Your task to perform on an android device: Go to Amazon Image 0: 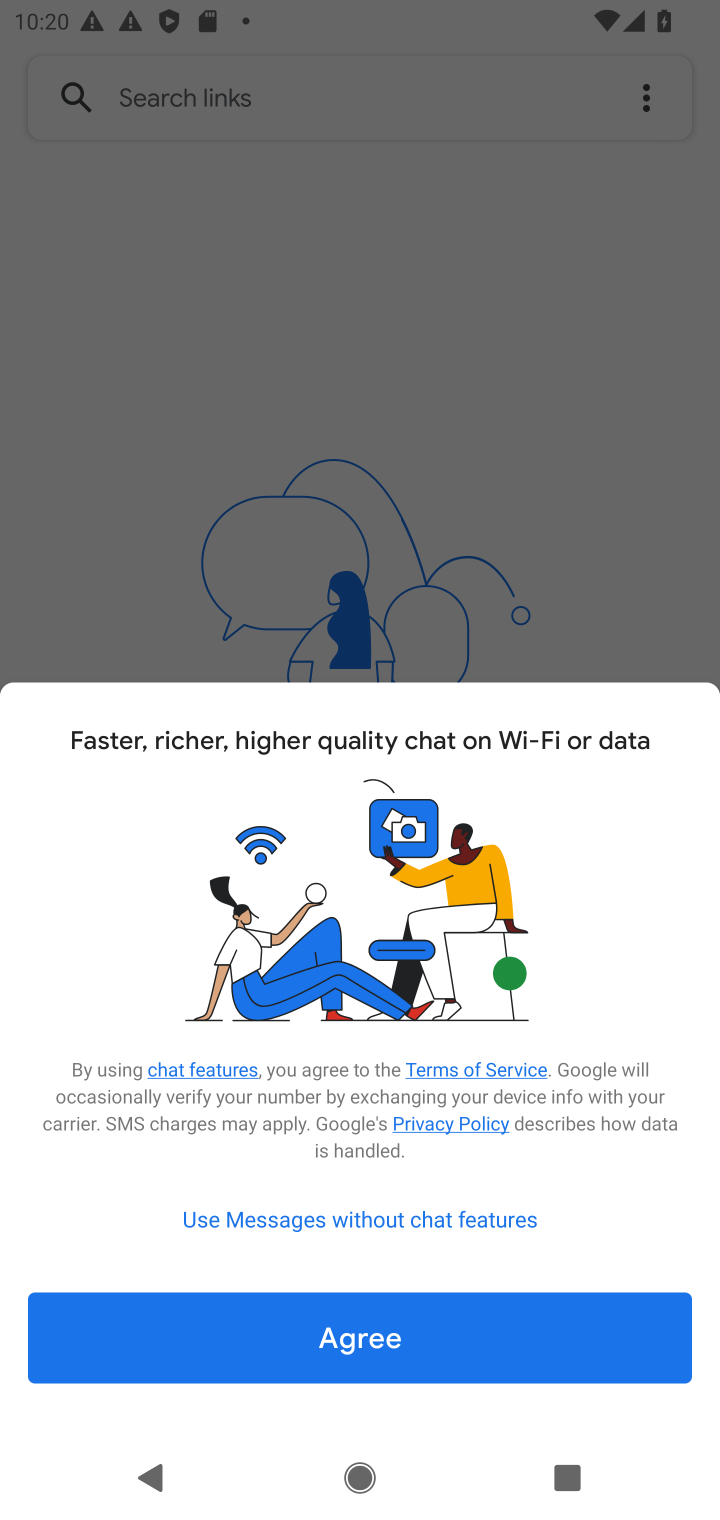
Step 0: click (374, 1352)
Your task to perform on an android device: Go to Amazon Image 1: 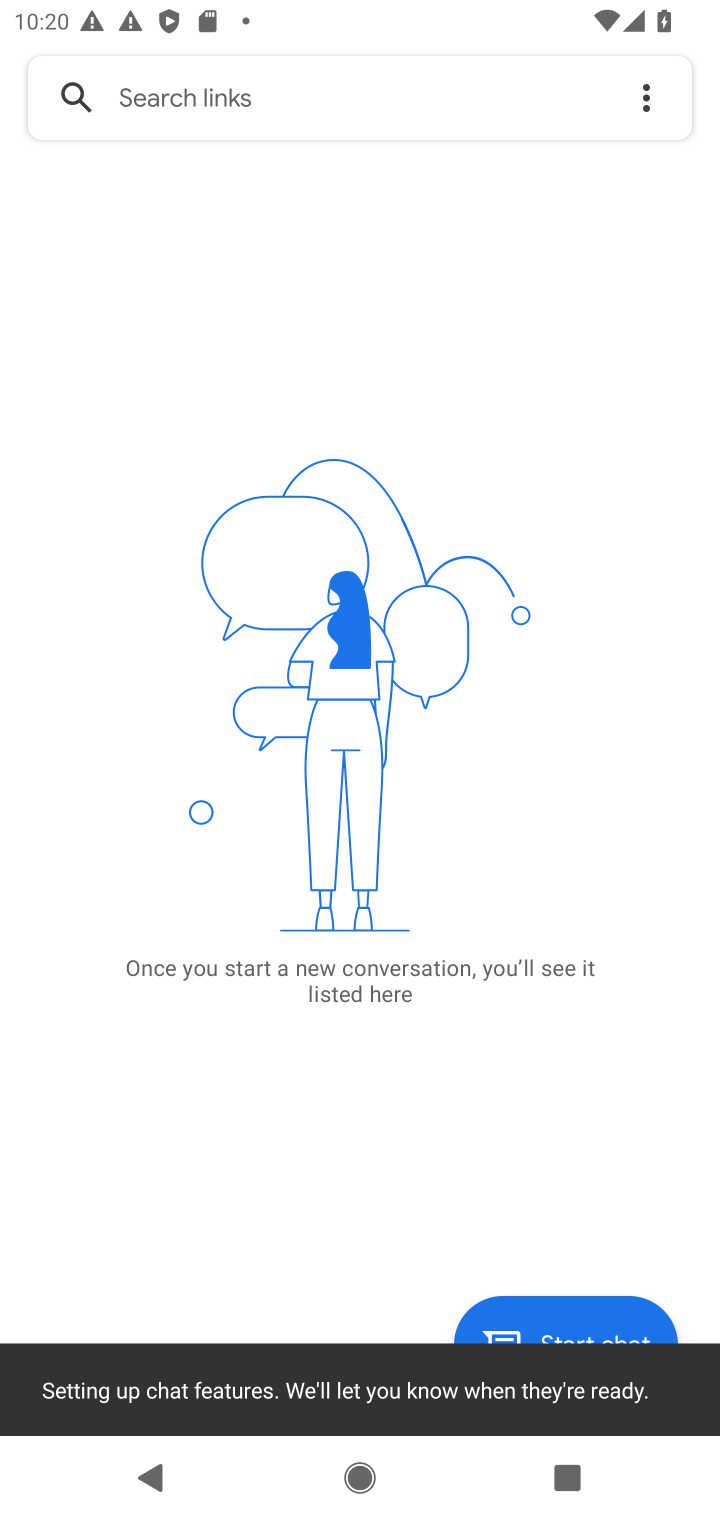
Step 1: click (349, 1490)
Your task to perform on an android device: Go to Amazon Image 2: 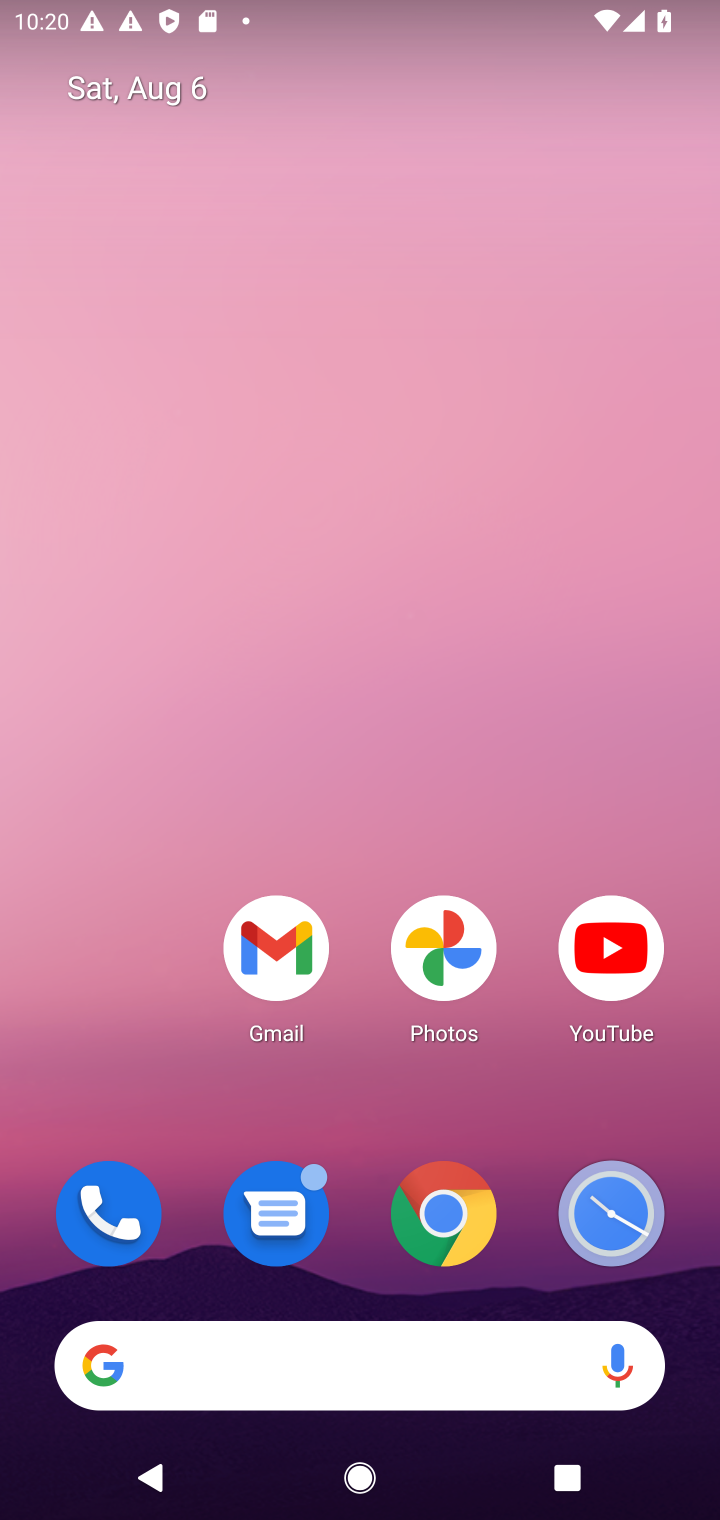
Step 2: drag from (405, 794) to (411, 78)
Your task to perform on an android device: Go to Amazon Image 3: 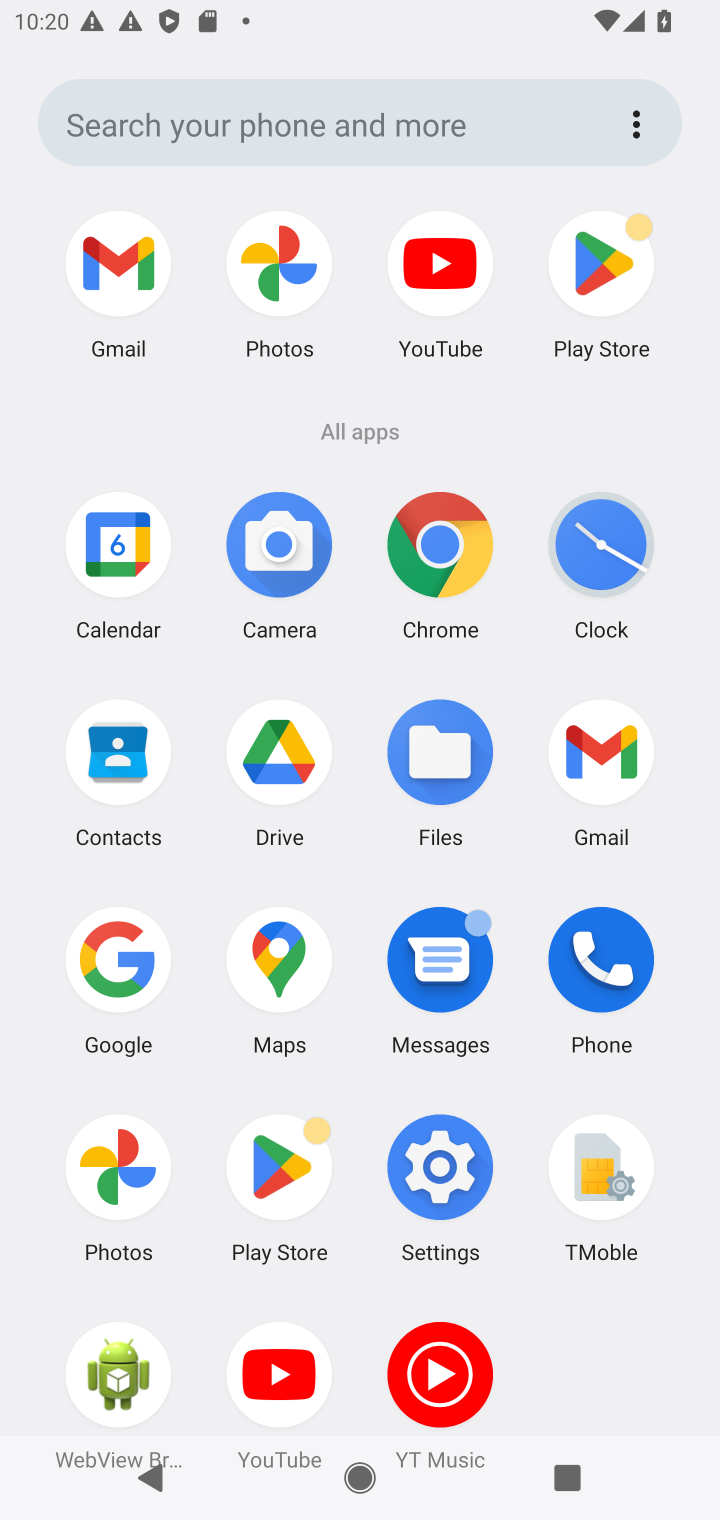
Step 3: click (455, 567)
Your task to perform on an android device: Go to Amazon Image 4: 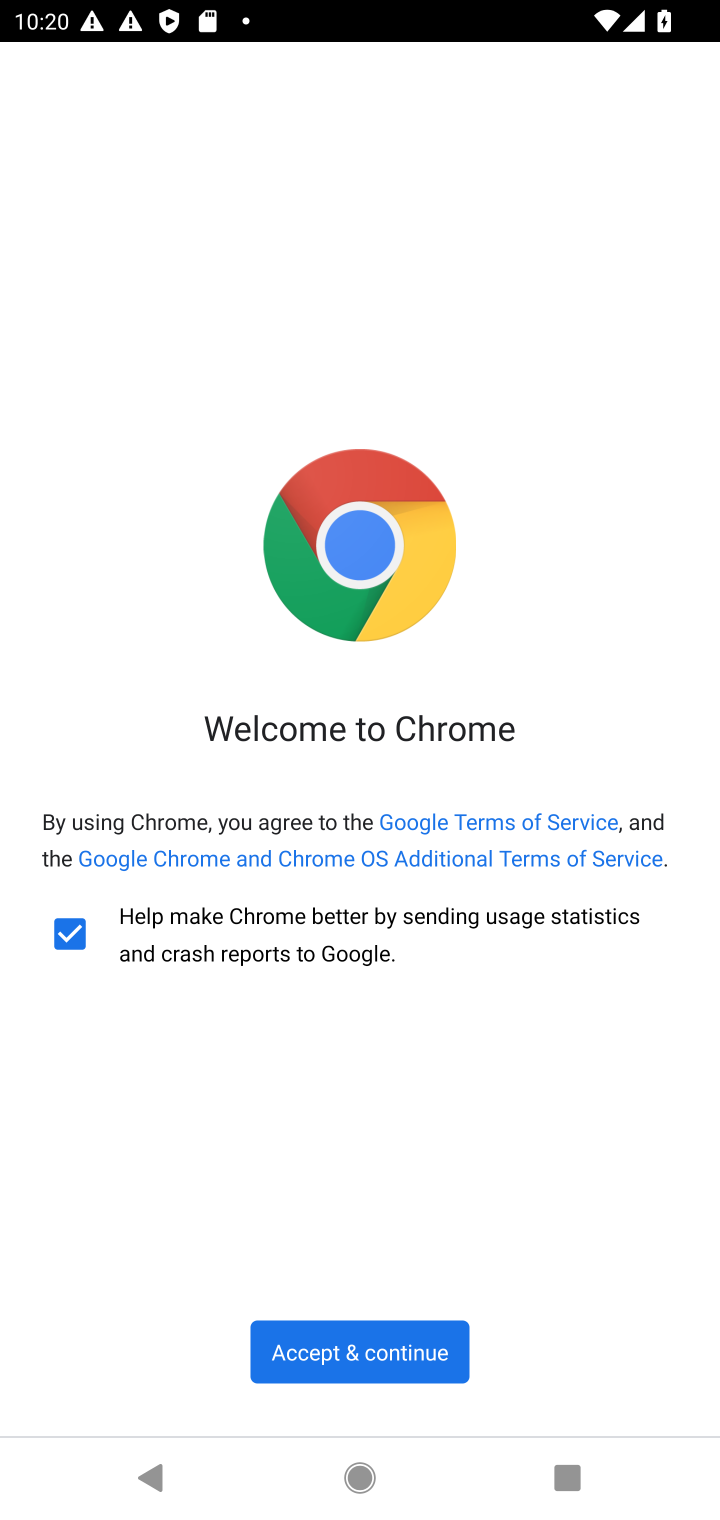
Step 4: click (323, 1363)
Your task to perform on an android device: Go to Amazon Image 5: 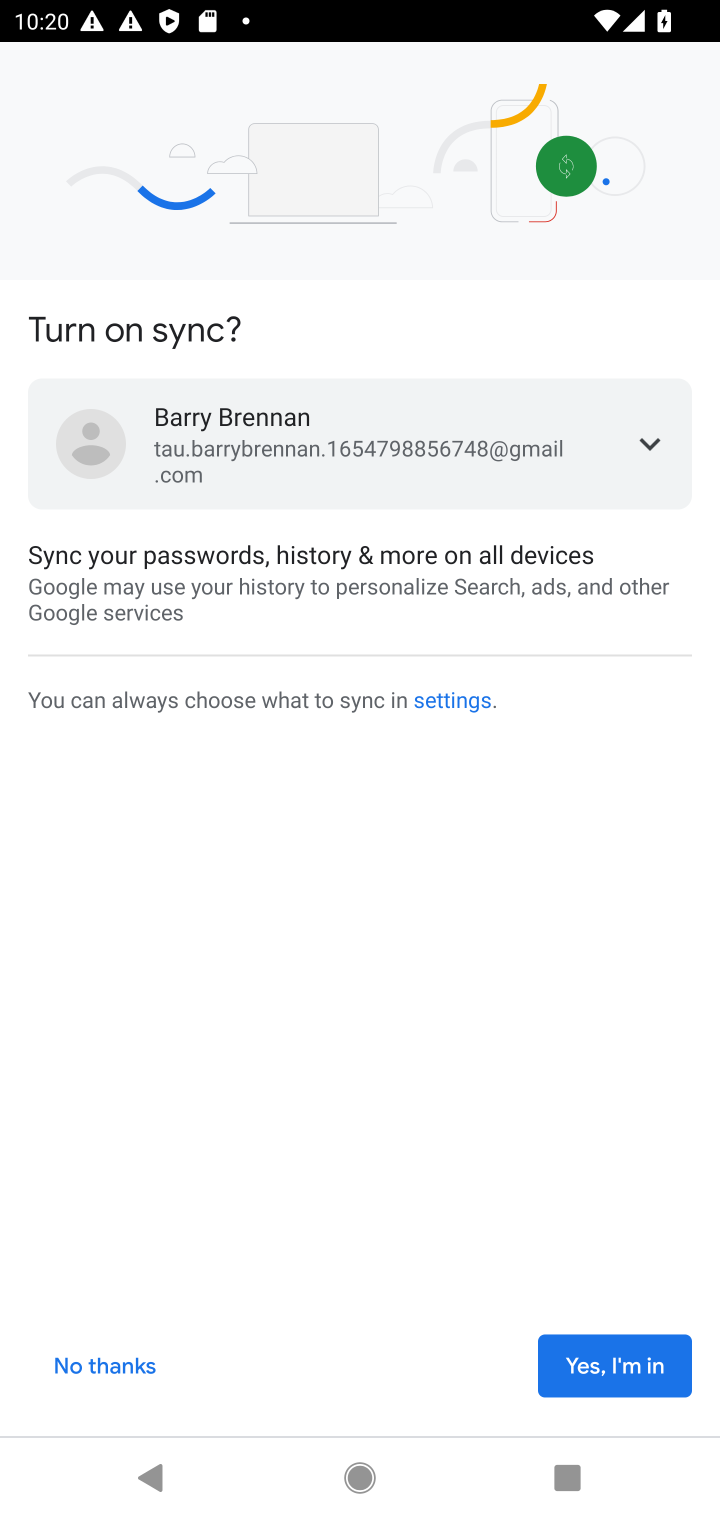
Step 5: click (619, 1359)
Your task to perform on an android device: Go to Amazon Image 6: 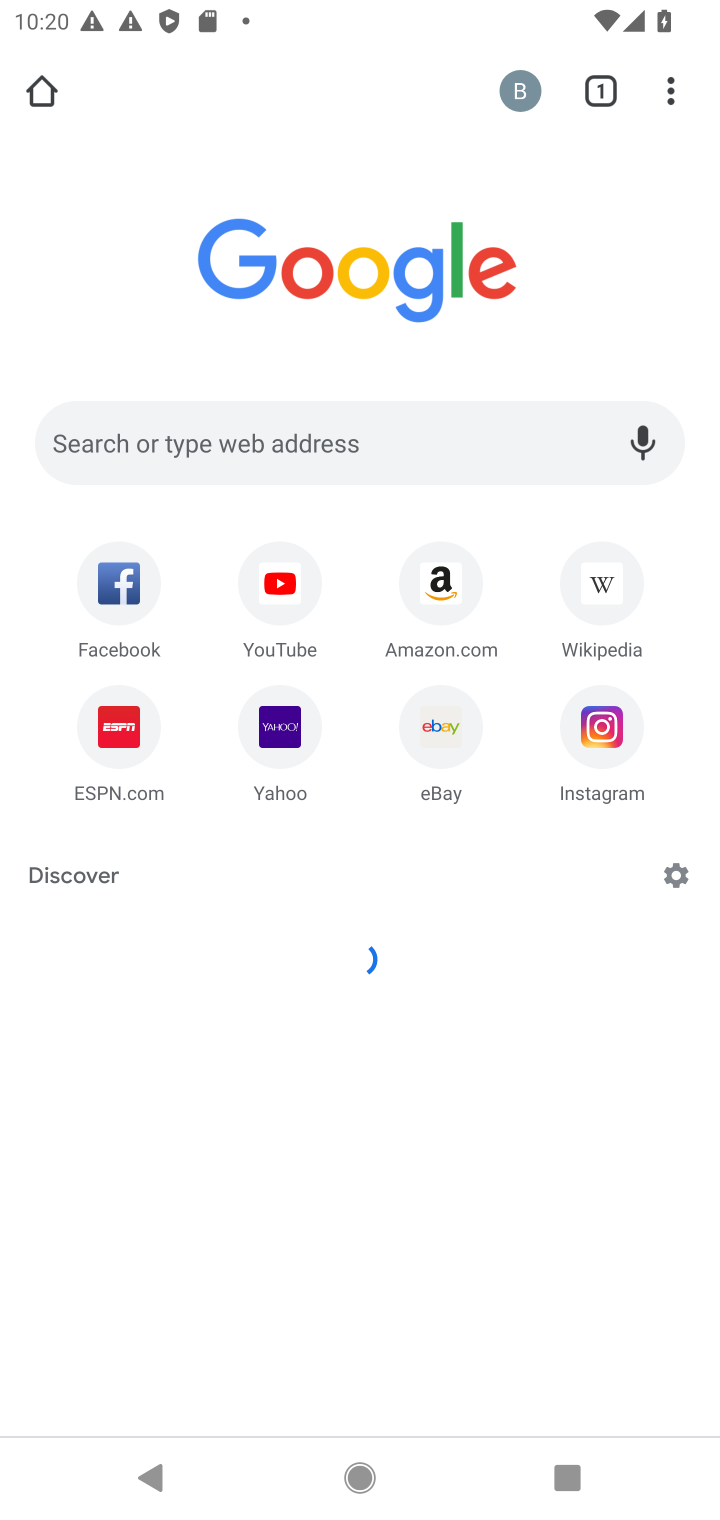
Step 6: click (445, 595)
Your task to perform on an android device: Go to Amazon Image 7: 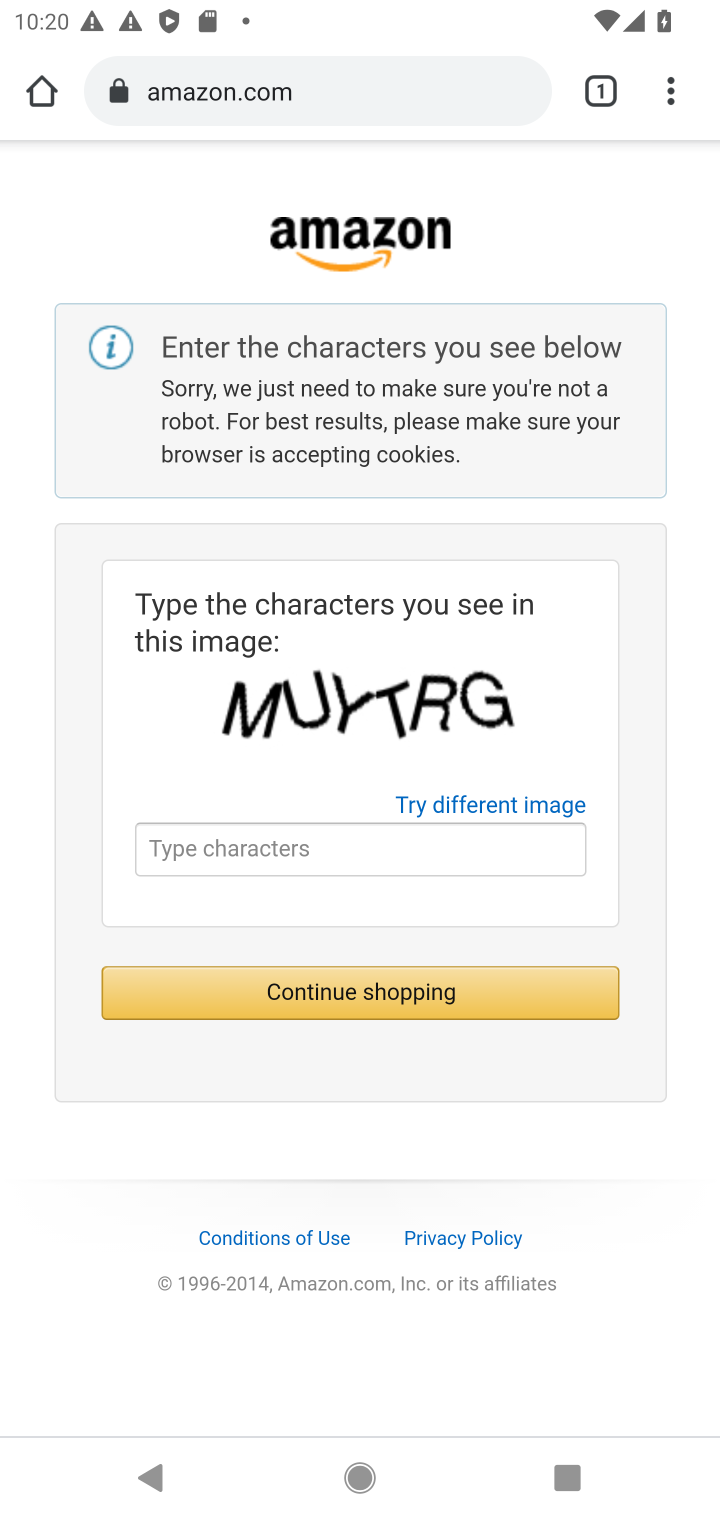
Step 7: task complete